Your task to perform on an android device: turn pop-ups off in chrome Image 0: 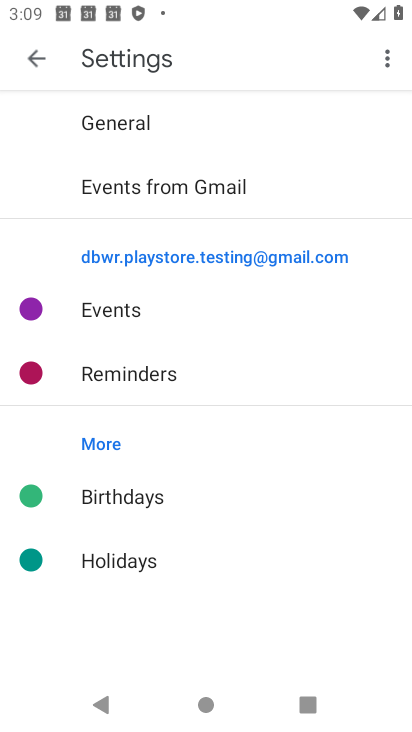
Step 0: press home button
Your task to perform on an android device: turn pop-ups off in chrome Image 1: 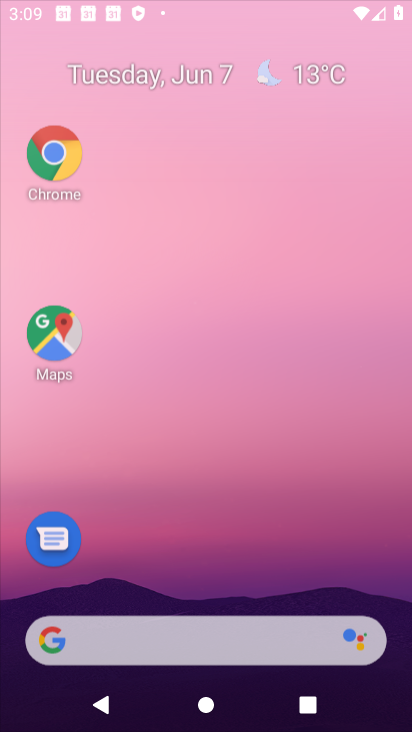
Step 1: drag from (163, 603) to (209, 13)
Your task to perform on an android device: turn pop-ups off in chrome Image 2: 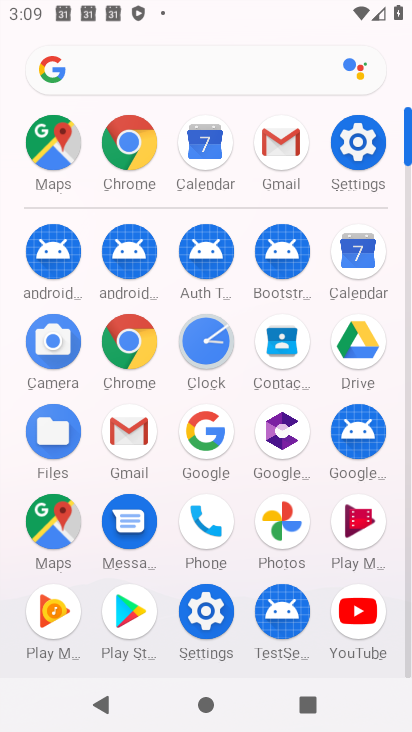
Step 2: click (124, 336)
Your task to perform on an android device: turn pop-ups off in chrome Image 3: 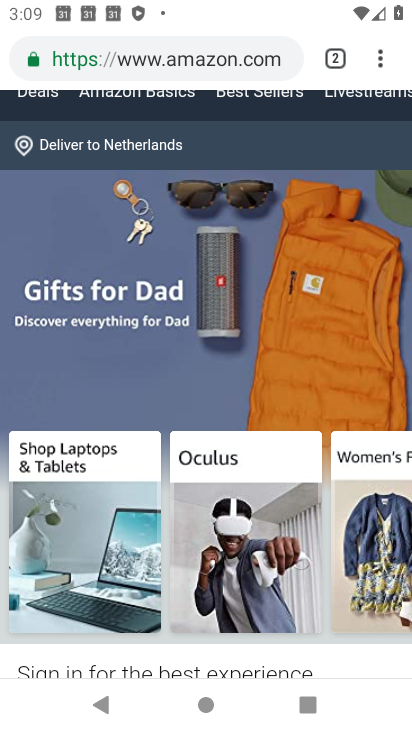
Step 3: click (378, 52)
Your task to perform on an android device: turn pop-ups off in chrome Image 4: 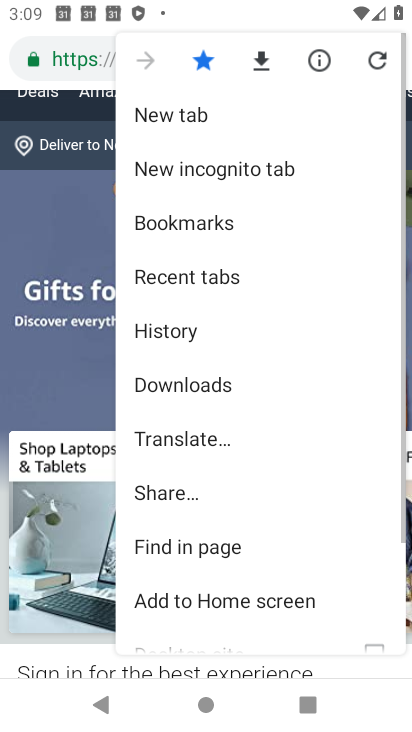
Step 4: drag from (200, 577) to (256, 115)
Your task to perform on an android device: turn pop-ups off in chrome Image 5: 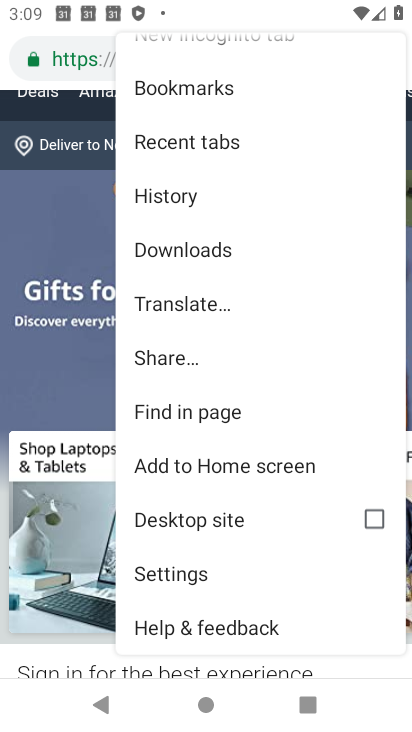
Step 5: click (206, 577)
Your task to perform on an android device: turn pop-ups off in chrome Image 6: 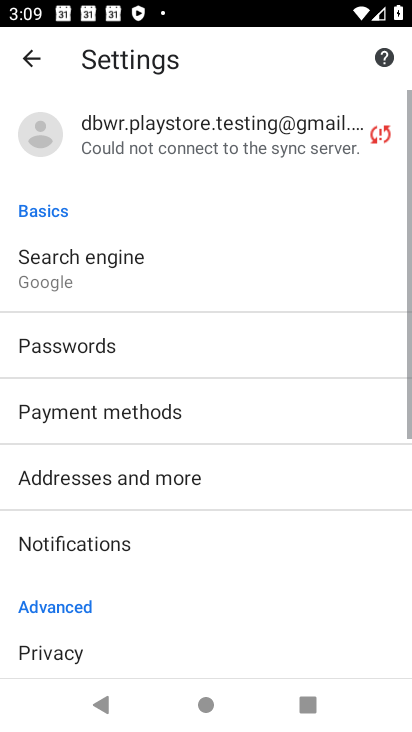
Step 6: drag from (212, 571) to (228, 63)
Your task to perform on an android device: turn pop-ups off in chrome Image 7: 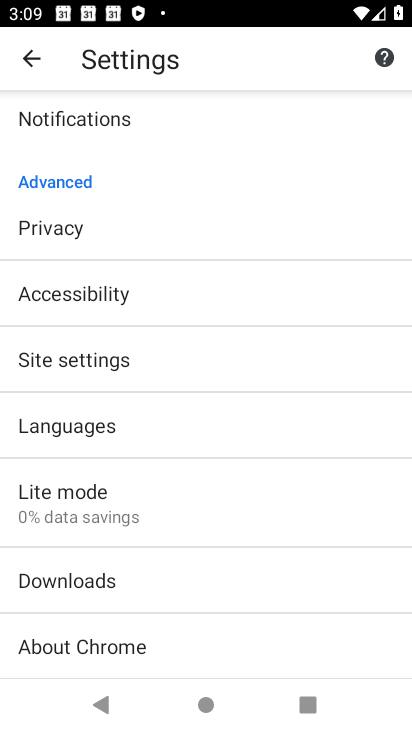
Step 7: click (99, 362)
Your task to perform on an android device: turn pop-ups off in chrome Image 8: 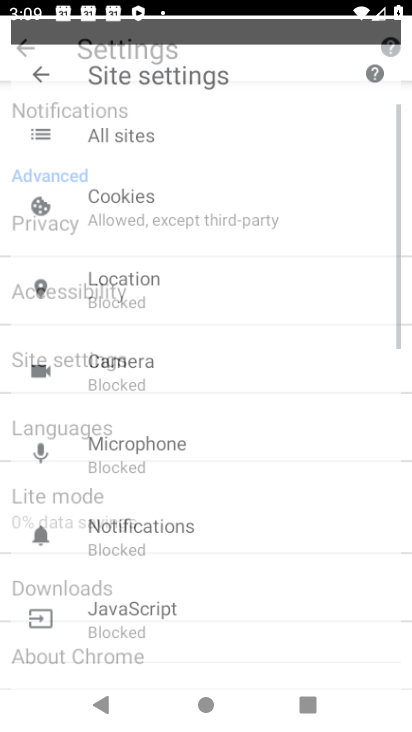
Step 8: drag from (183, 511) to (271, 13)
Your task to perform on an android device: turn pop-ups off in chrome Image 9: 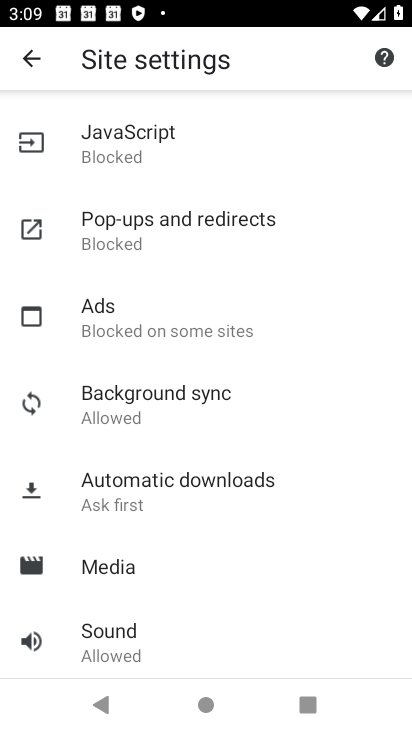
Step 9: click (147, 234)
Your task to perform on an android device: turn pop-ups off in chrome Image 10: 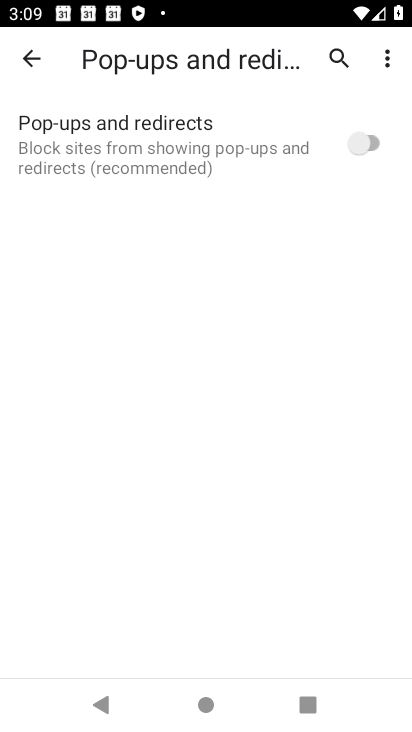
Step 10: task complete